Your task to perform on an android device: toggle show notifications on the lock screen Image 0: 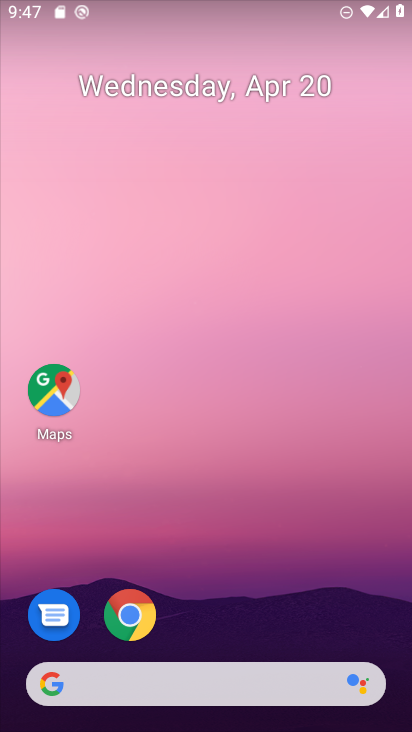
Step 0: drag from (302, 633) to (218, 13)
Your task to perform on an android device: toggle show notifications on the lock screen Image 1: 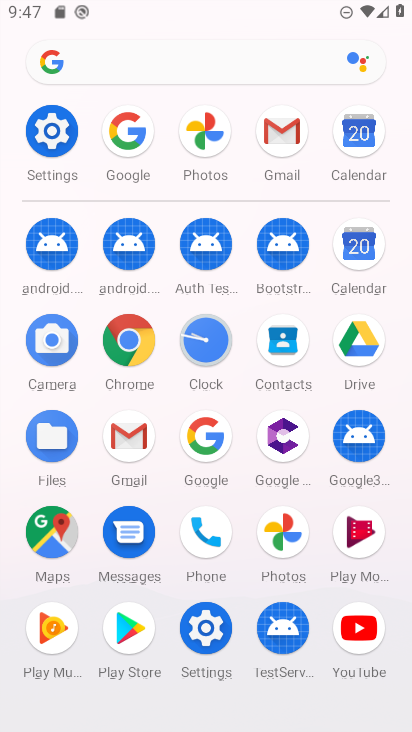
Step 1: click (53, 132)
Your task to perform on an android device: toggle show notifications on the lock screen Image 2: 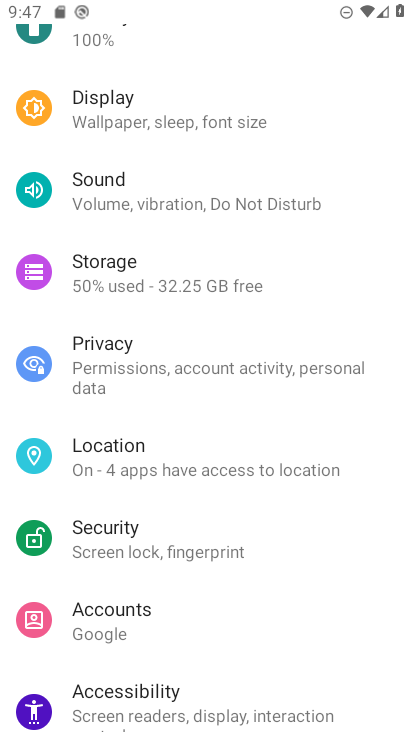
Step 2: drag from (190, 413) to (218, 478)
Your task to perform on an android device: toggle show notifications on the lock screen Image 3: 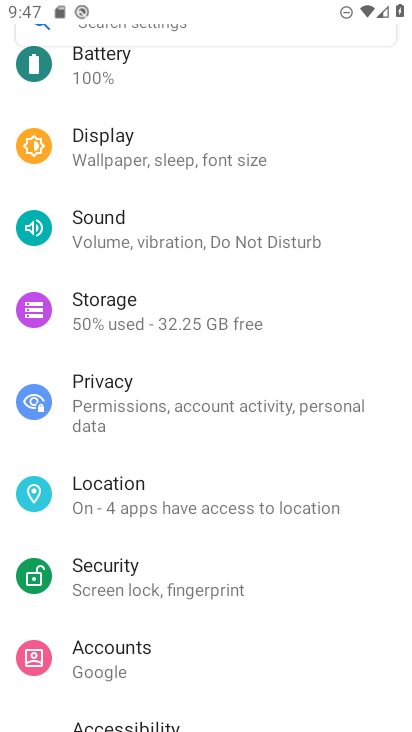
Step 3: drag from (205, 358) to (239, 441)
Your task to perform on an android device: toggle show notifications on the lock screen Image 4: 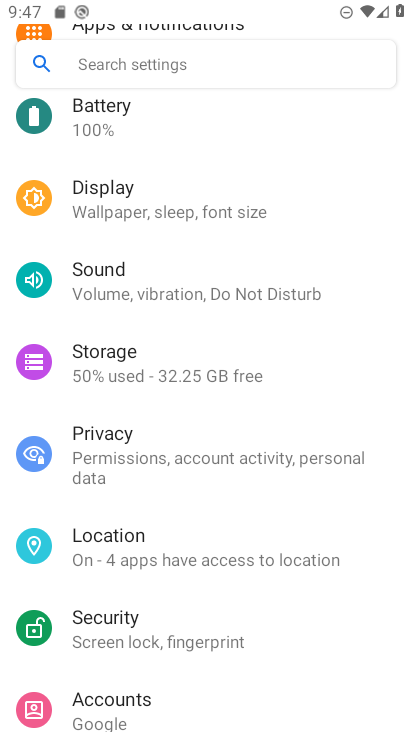
Step 4: drag from (209, 333) to (250, 423)
Your task to perform on an android device: toggle show notifications on the lock screen Image 5: 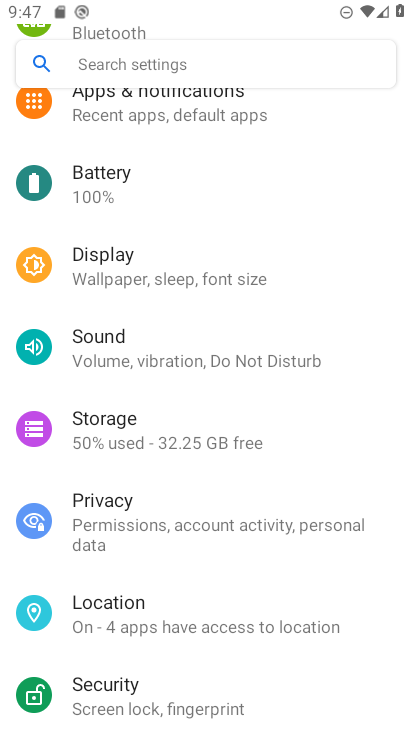
Step 5: drag from (226, 312) to (223, 397)
Your task to perform on an android device: toggle show notifications on the lock screen Image 6: 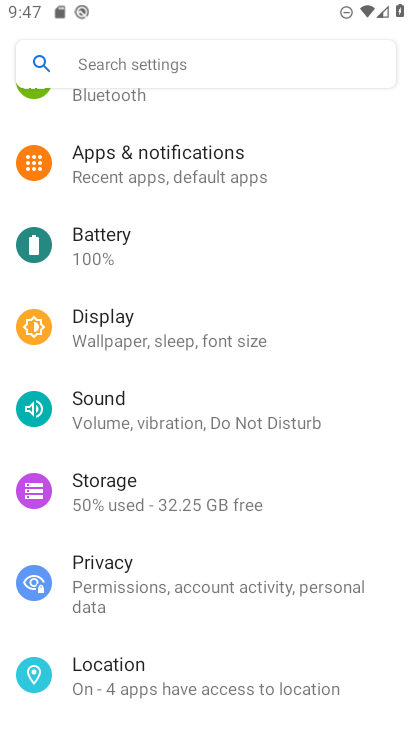
Step 6: drag from (212, 284) to (214, 372)
Your task to perform on an android device: toggle show notifications on the lock screen Image 7: 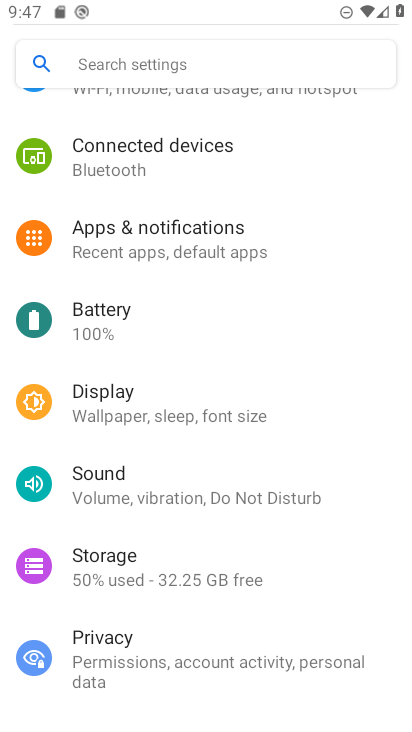
Step 7: click (216, 230)
Your task to perform on an android device: toggle show notifications on the lock screen Image 8: 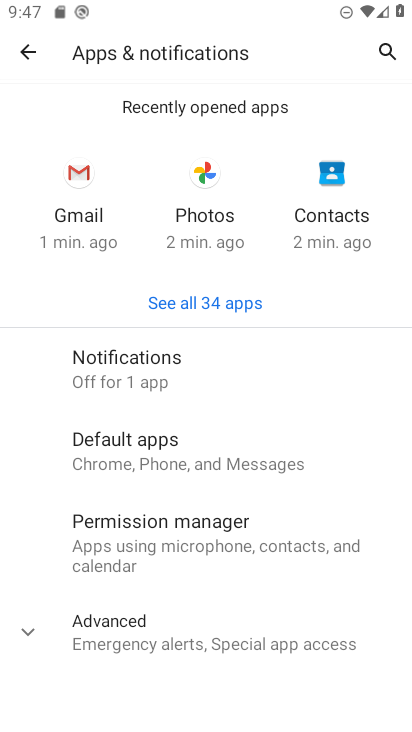
Step 8: click (142, 359)
Your task to perform on an android device: toggle show notifications on the lock screen Image 9: 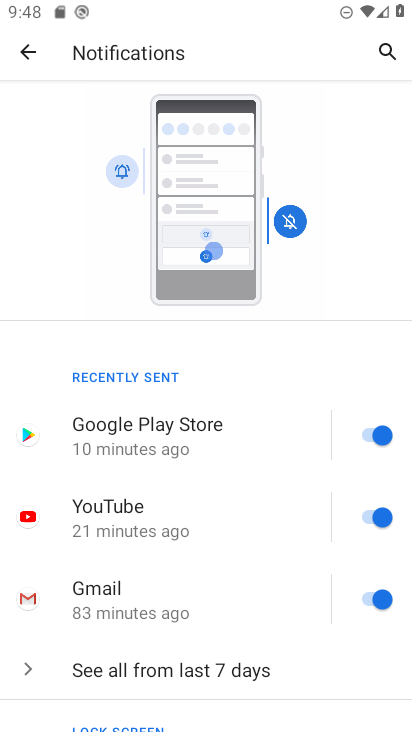
Step 9: drag from (190, 487) to (294, 299)
Your task to perform on an android device: toggle show notifications on the lock screen Image 10: 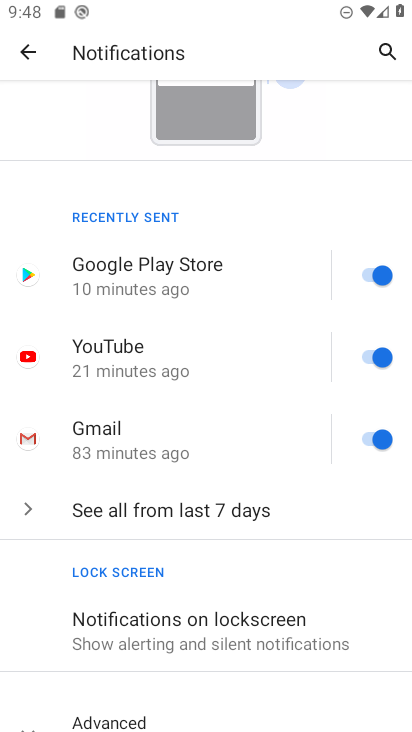
Step 10: drag from (191, 562) to (275, 409)
Your task to perform on an android device: toggle show notifications on the lock screen Image 11: 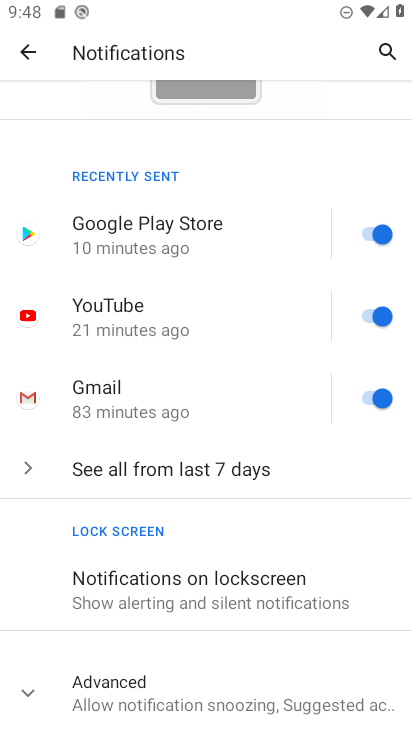
Step 11: click (175, 586)
Your task to perform on an android device: toggle show notifications on the lock screen Image 12: 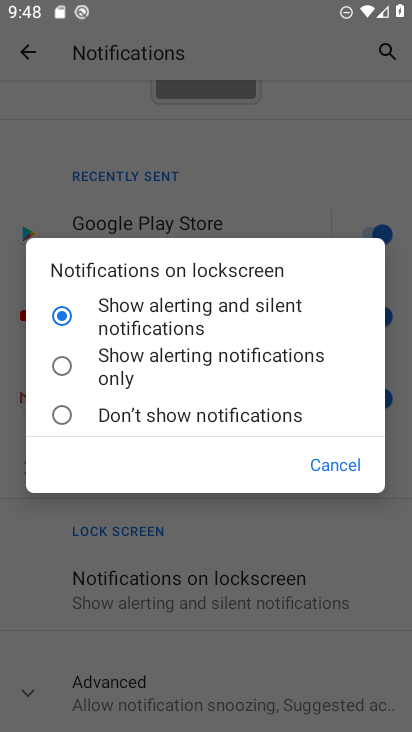
Step 12: click (66, 415)
Your task to perform on an android device: toggle show notifications on the lock screen Image 13: 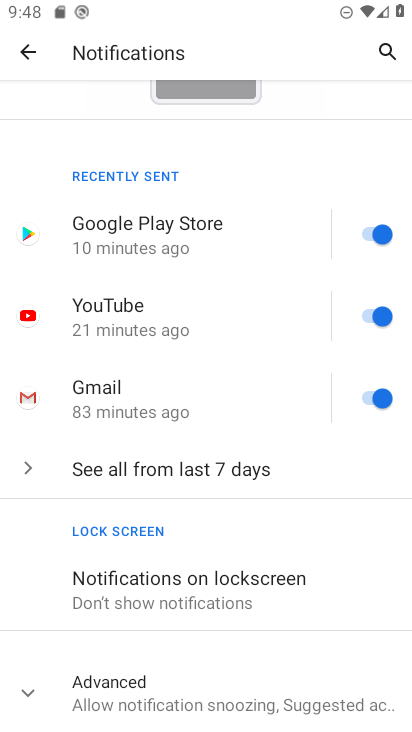
Step 13: task complete